Your task to perform on an android device: Go to network settings Image 0: 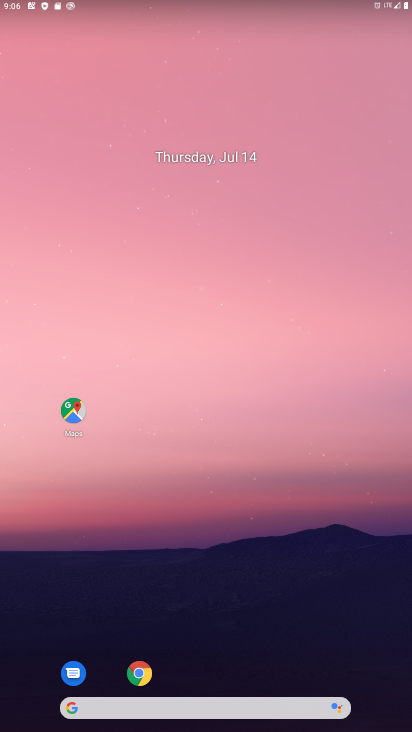
Step 0: drag from (218, 704) to (310, 53)
Your task to perform on an android device: Go to network settings Image 1: 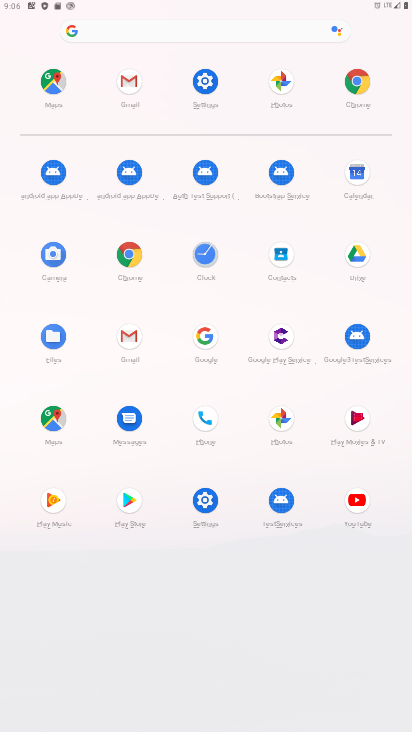
Step 1: click (206, 81)
Your task to perform on an android device: Go to network settings Image 2: 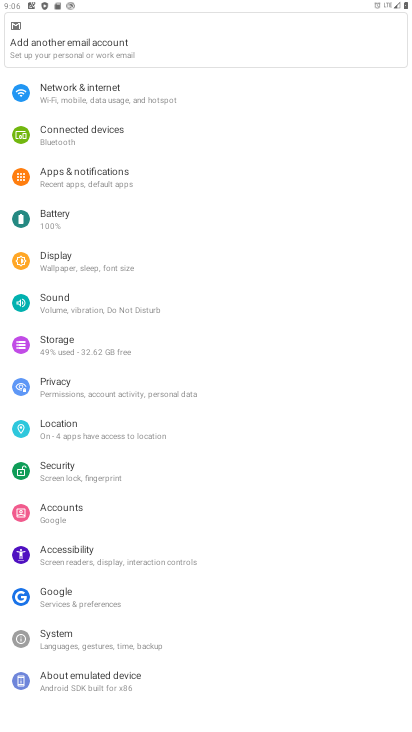
Step 2: click (56, 89)
Your task to perform on an android device: Go to network settings Image 3: 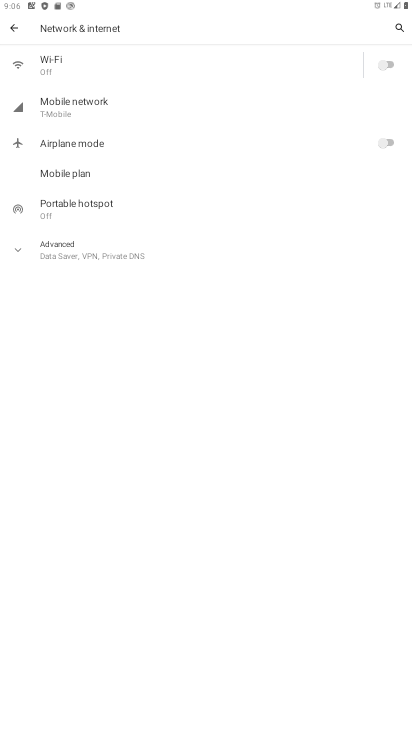
Step 3: task complete